Your task to perform on an android device: turn off improve location accuracy Image 0: 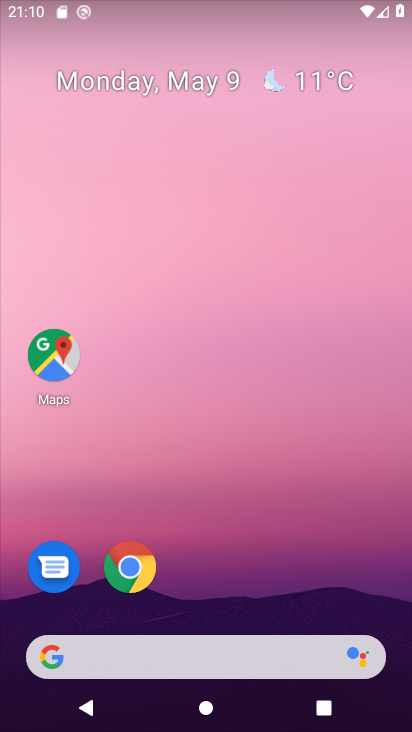
Step 0: drag from (259, 552) to (207, 104)
Your task to perform on an android device: turn off improve location accuracy Image 1: 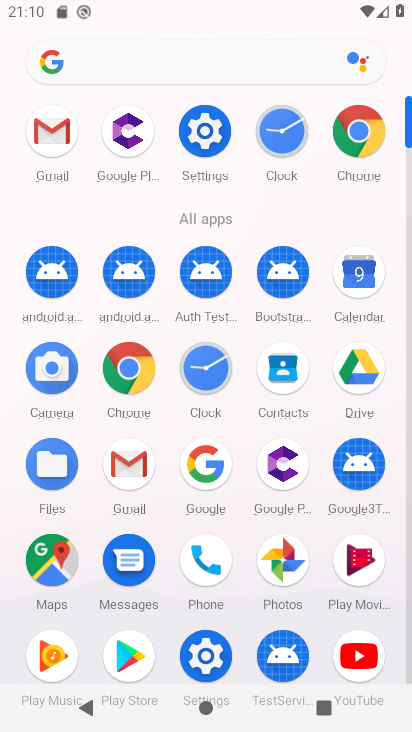
Step 1: click (207, 140)
Your task to perform on an android device: turn off improve location accuracy Image 2: 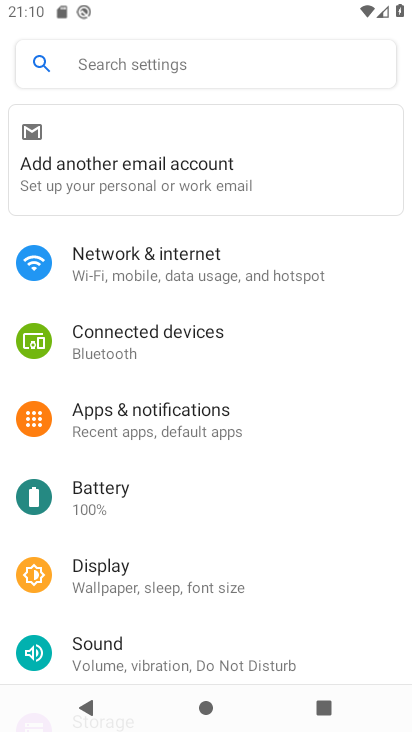
Step 2: drag from (202, 621) to (227, 192)
Your task to perform on an android device: turn off improve location accuracy Image 3: 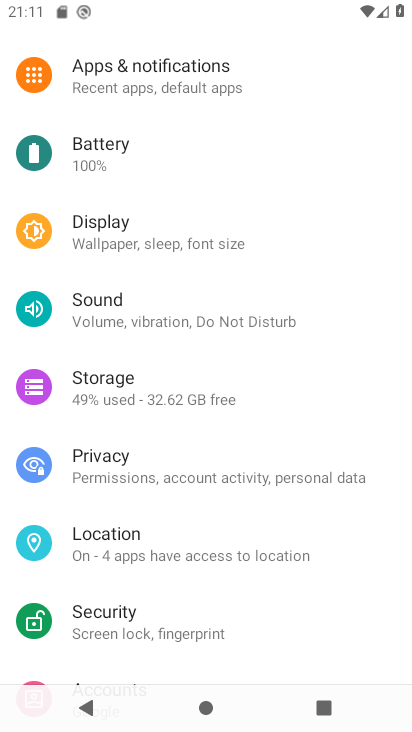
Step 3: click (172, 533)
Your task to perform on an android device: turn off improve location accuracy Image 4: 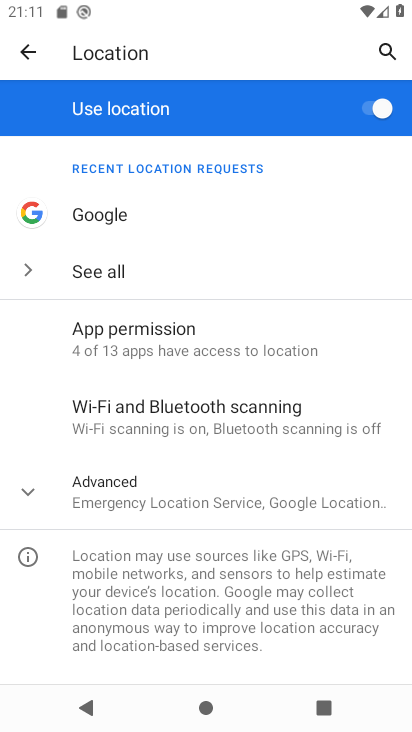
Step 4: click (172, 484)
Your task to perform on an android device: turn off improve location accuracy Image 5: 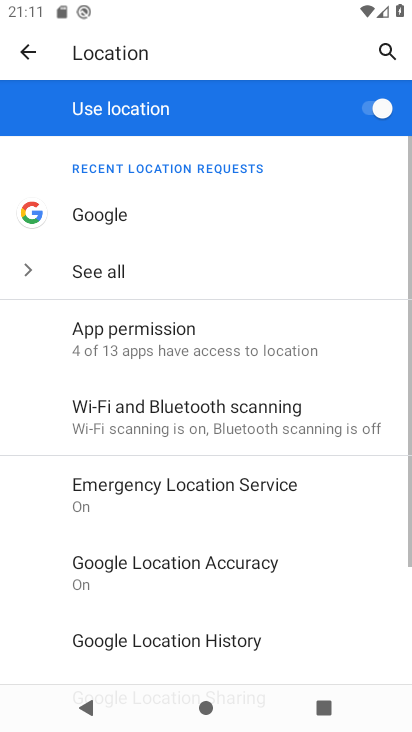
Step 5: drag from (181, 595) to (222, 328)
Your task to perform on an android device: turn off improve location accuracy Image 6: 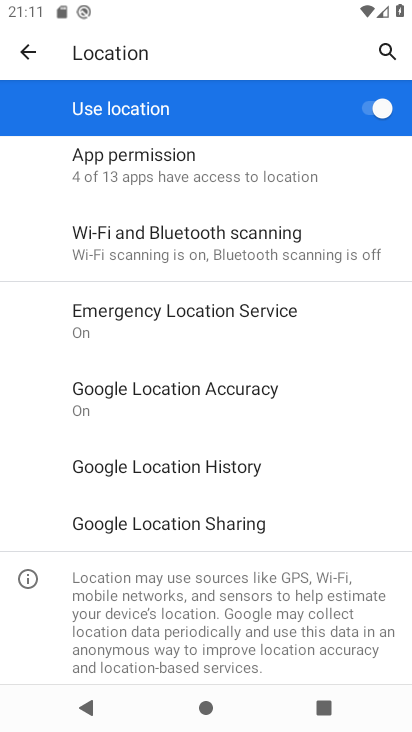
Step 6: click (236, 370)
Your task to perform on an android device: turn off improve location accuracy Image 7: 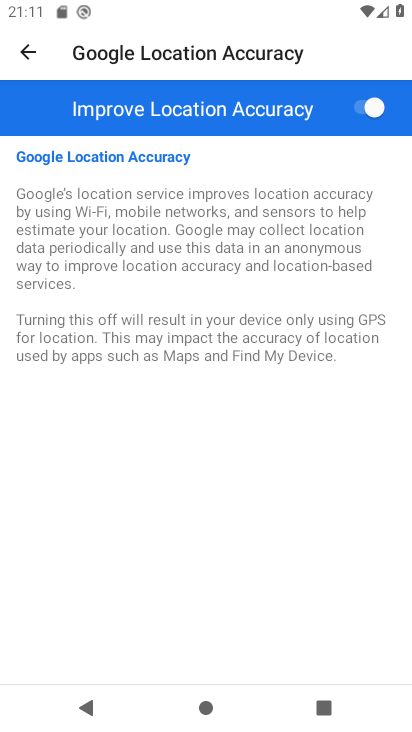
Step 7: click (354, 99)
Your task to perform on an android device: turn off improve location accuracy Image 8: 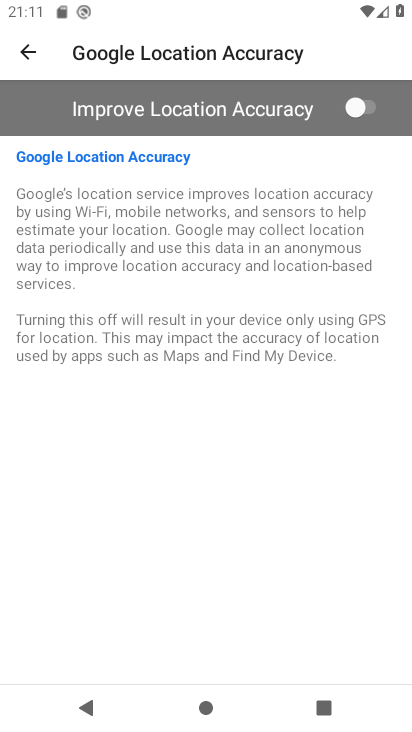
Step 8: task complete